Your task to perform on an android device: Search for rayovac triple a on target.com, select the first entry, add it to the cart, then select checkout. Image 0: 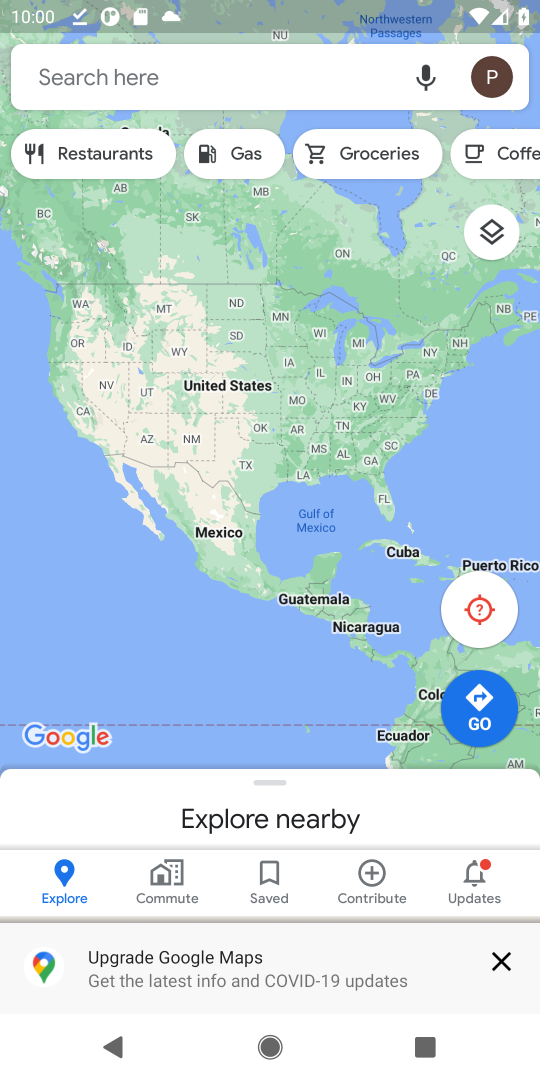
Step 0: press home button
Your task to perform on an android device: Search for rayovac triple a on target.com, select the first entry, add it to the cart, then select checkout. Image 1: 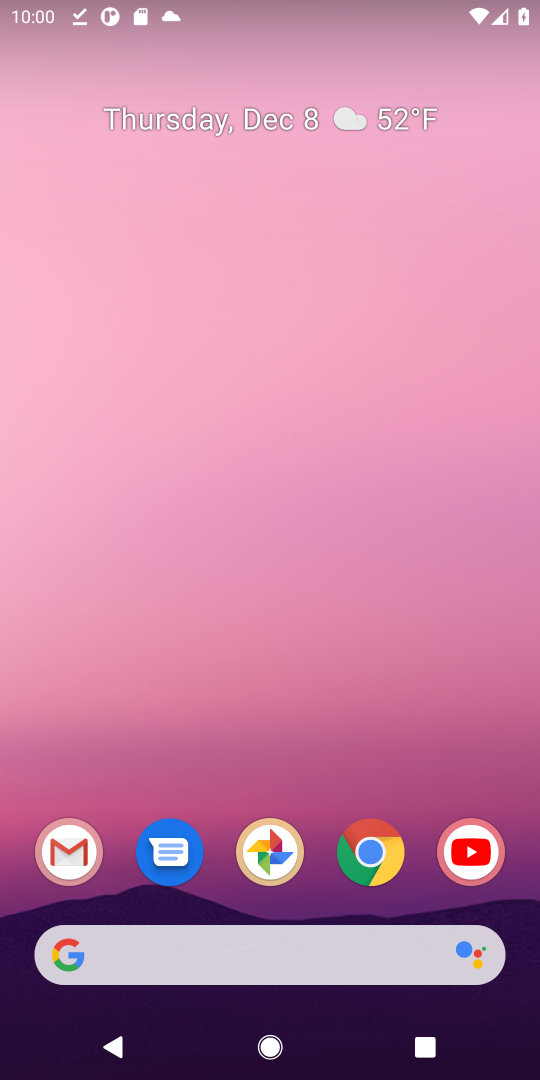
Step 1: click (293, 968)
Your task to perform on an android device: Search for rayovac triple a on target.com, select the first entry, add it to the cart, then select checkout. Image 2: 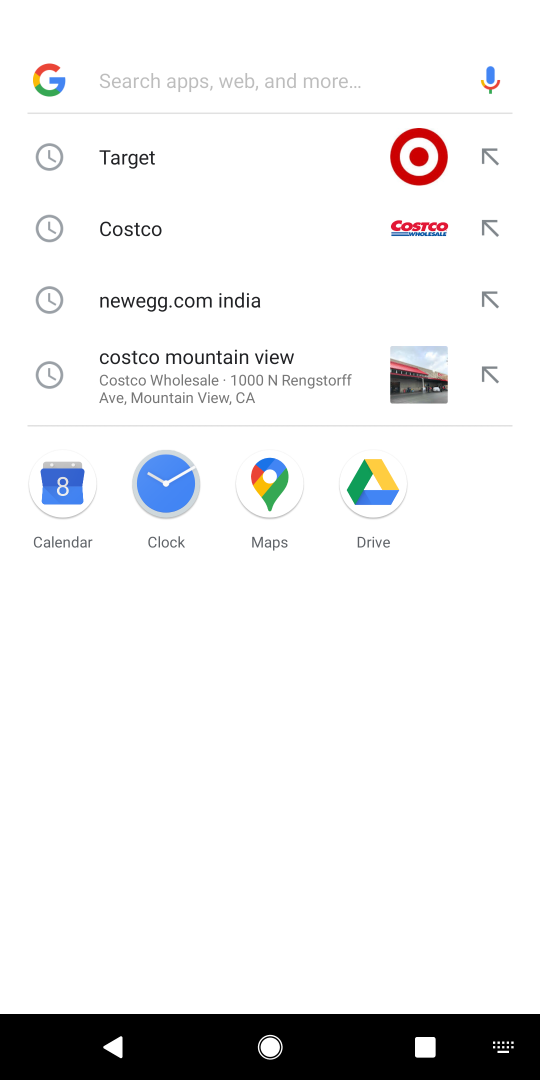
Step 2: click (132, 160)
Your task to perform on an android device: Search for rayovac triple a on target.com, select the first entry, add it to the cart, then select checkout. Image 3: 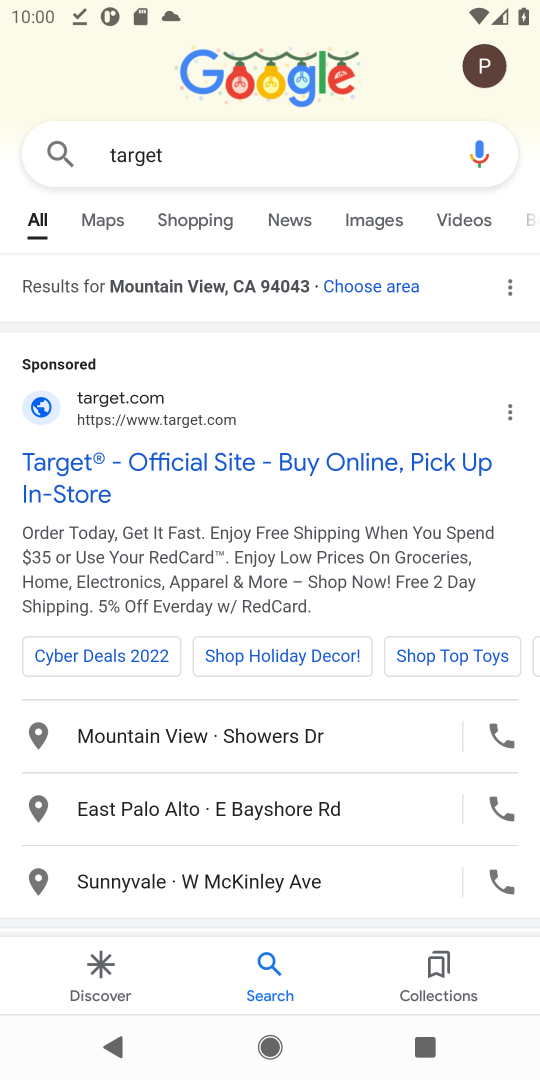
Step 3: click (87, 478)
Your task to perform on an android device: Search for rayovac triple a on target.com, select the first entry, add it to the cart, then select checkout. Image 4: 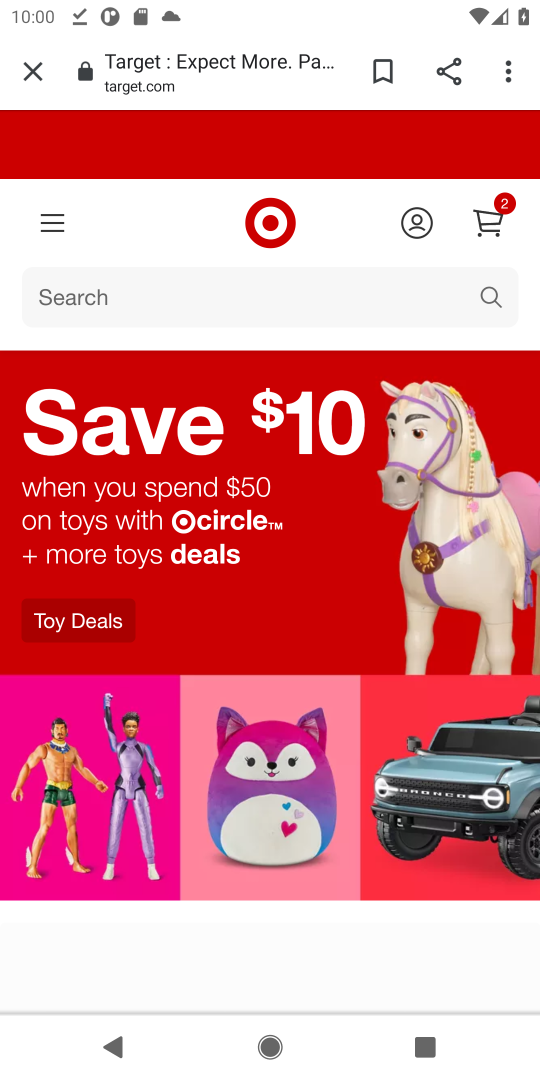
Step 4: click (289, 295)
Your task to perform on an android device: Search for rayovac triple a on target.com, select the first entry, add it to the cart, then select checkout. Image 5: 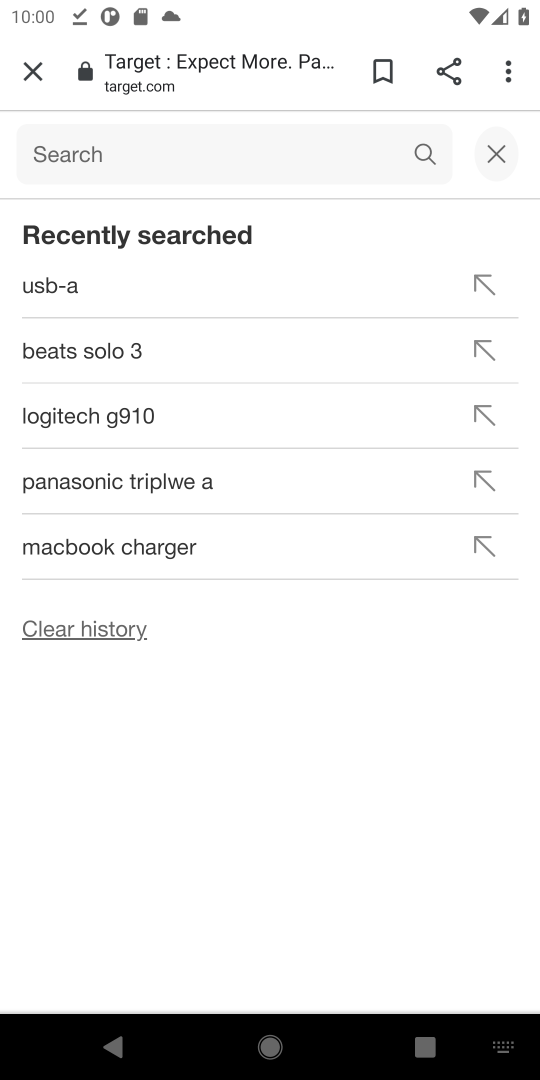
Step 5: type "rayovac triple a"
Your task to perform on an android device: Search for rayovac triple a on target.com, select the first entry, add it to the cart, then select checkout. Image 6: 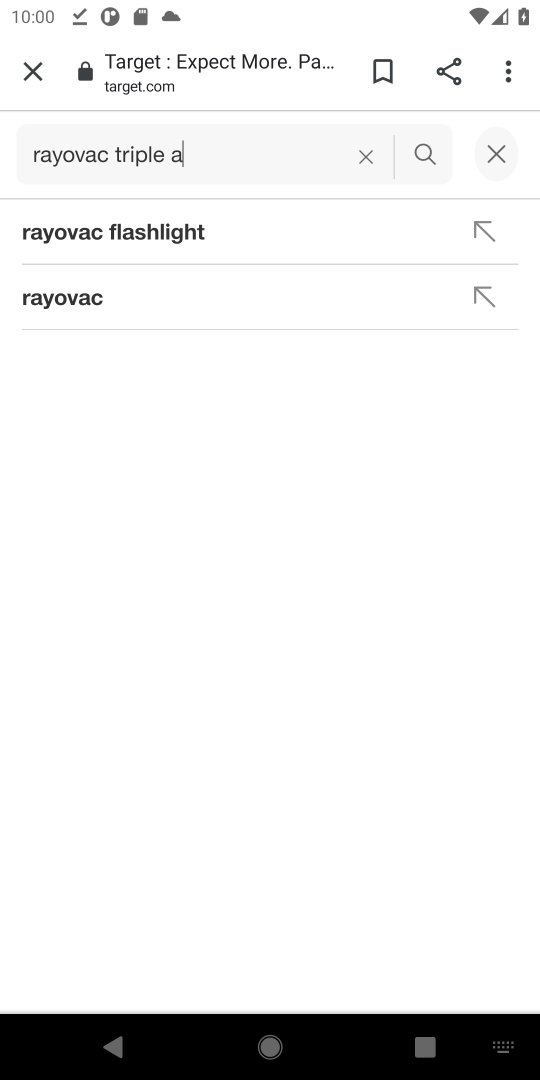
Step 6: click (412, 173)
Your task to perform on an android device: Search for rayovac triple a on target.com, select the first entry, add it to the cart, then select checkout. Image 7: 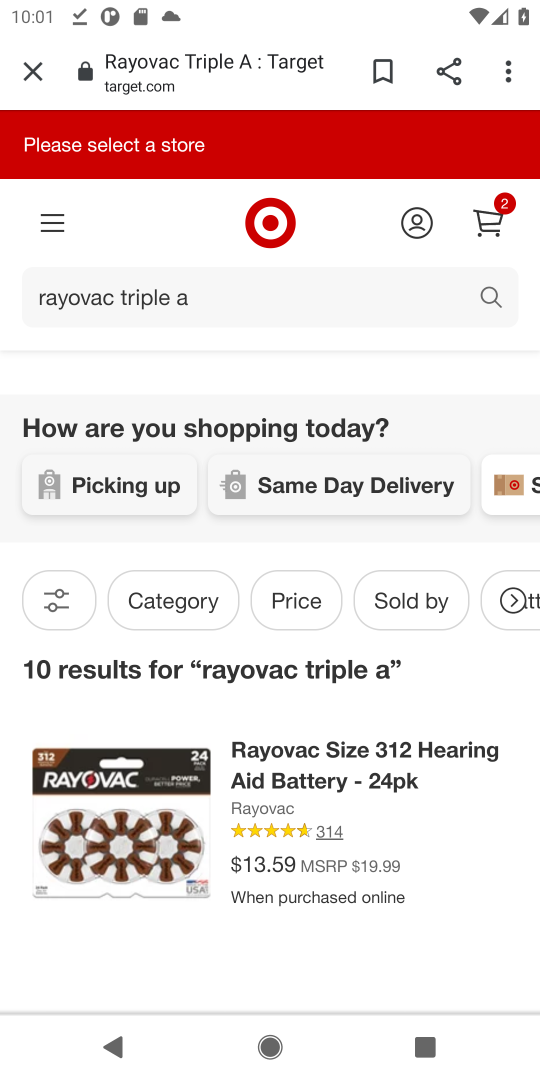
Step 7: click (305, 740)
Your task to perform on an android device: Search for rayovac triple a on target.com, select the first entry, add it to the cart, then select checkout. Image 8: 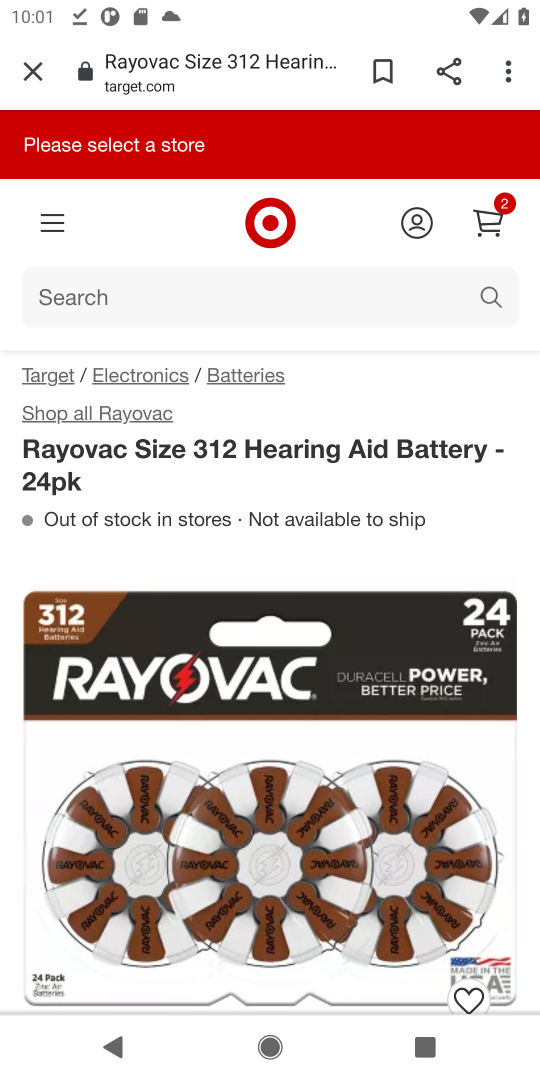
Step 8: drag from (319, 808) to (309, 254)
Your task to perform on an android device: Search for rayovac triple a on target.com, select the first entry, add it to the cart, then select checkout. Image 9: 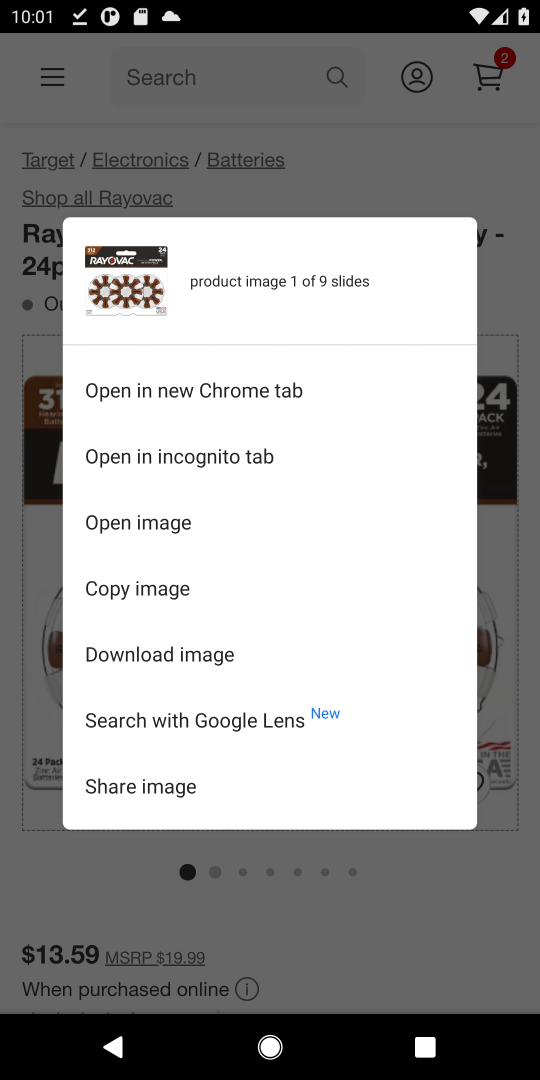
Step 9: click (430, 892)
Your task to perform on an android device: Search for rayovac triple a on target.com, select the first entry, add it to the cart, then select checkout. Image 10: 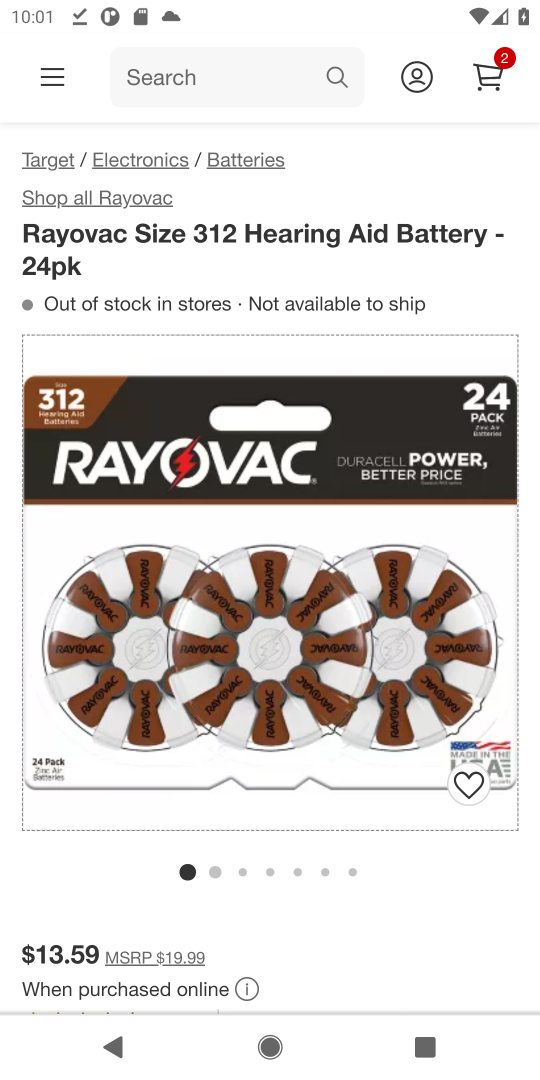
Step 10: click (402, 944)
Your task to perform on an android device: Search for rayovac triple a on target.com, select the first entry, add it to the cart, then select checkout. Image 11: 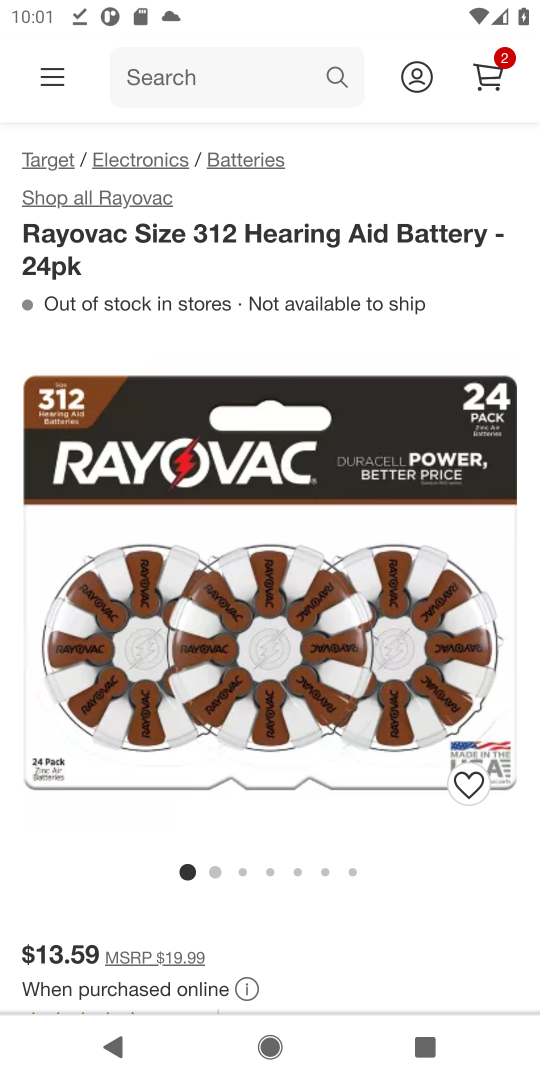
Step 11: task complete